Your task to perform on an android device: turn on translation in the chrome app Image 0: 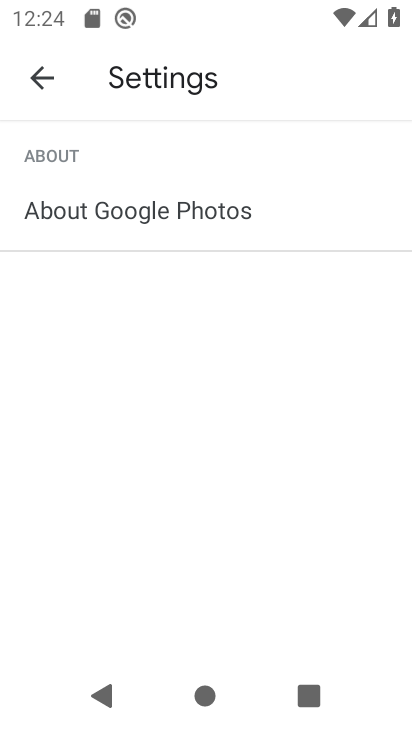
Step 0: press back button
Your task to perform on an android device: turn on translation in the chrome app Image 1: 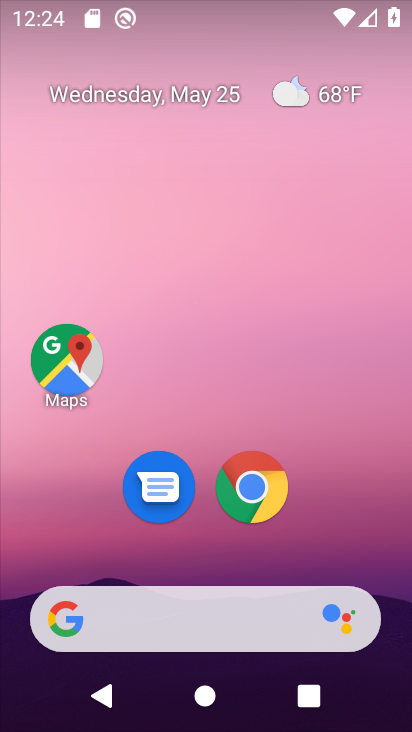
Step 1: click (255, 485)
Your task to perform on an android device: turn on translation in the chrome app Image 2: 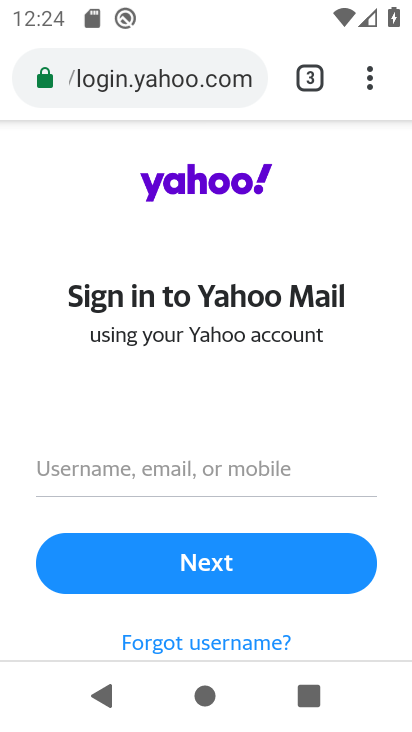
Step 2: drag from (368, 75) to (79, 550)
Your task to perform on an android device: turn on translation in the chrome app Image 3: 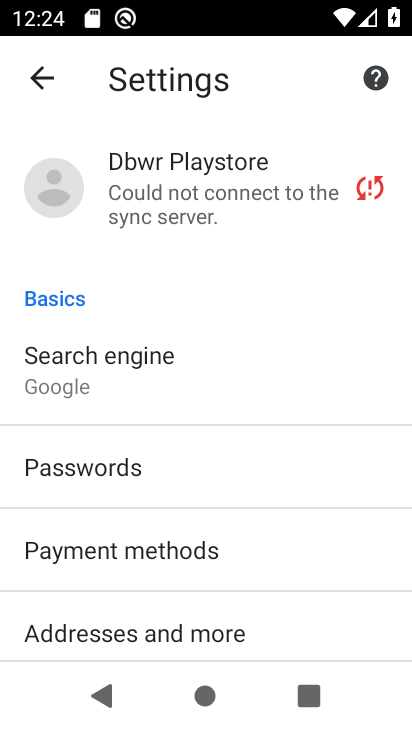
Step 3: drag from (177, 603) to (278, 163)
Your task to perform on an android device: turn on translation in the chrome app Image 4: 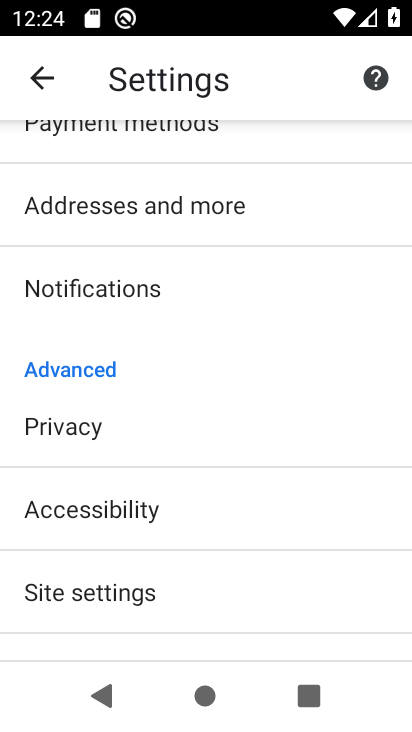
Step 4: drag from (158, 605) to (199, 308)
Your task to perform on an android device: turn on translation in the chrome app Image 5: 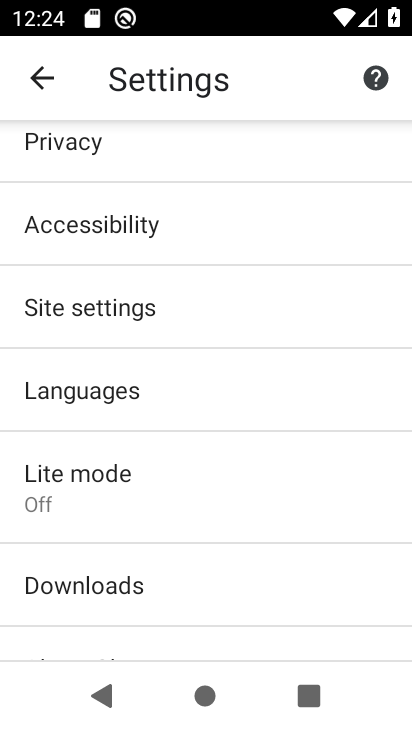
Step 5: click (114, 400)
Your task to perform on an android device: turn on translation in the chrome app Image 6: 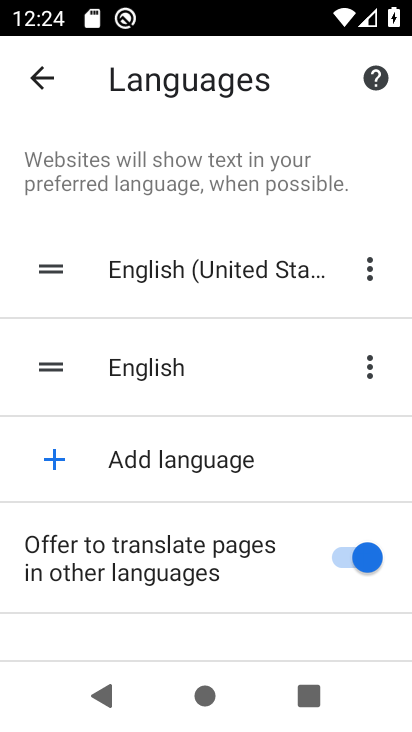
Step 6: task complete